Your task to perform on an android device: Open Chrome and go to settings Image 0: 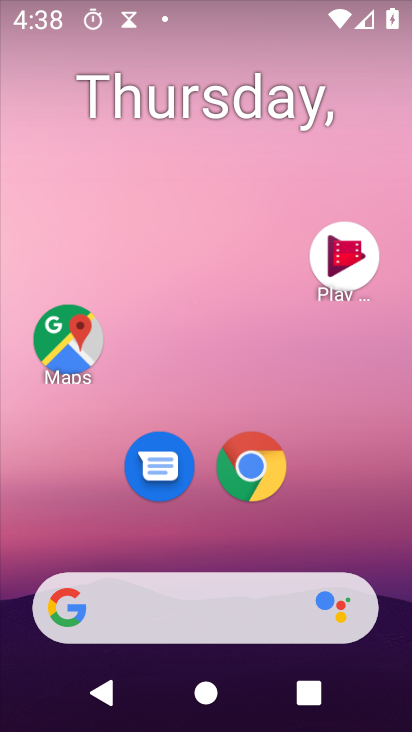
Step 0: drag from (298, 595) to (335, 44)
Your task to perform on an android device: Open Chrome and go to settings Image 1: 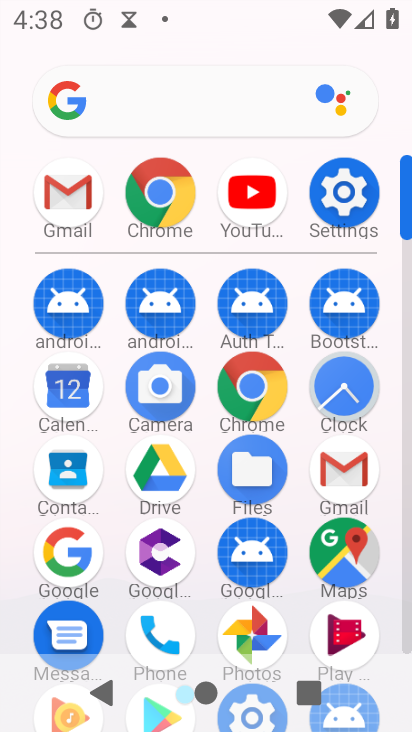
Step 1: click (253, 394)
Your task to perform on an android device: Open Chrome and go to settings Image 2: 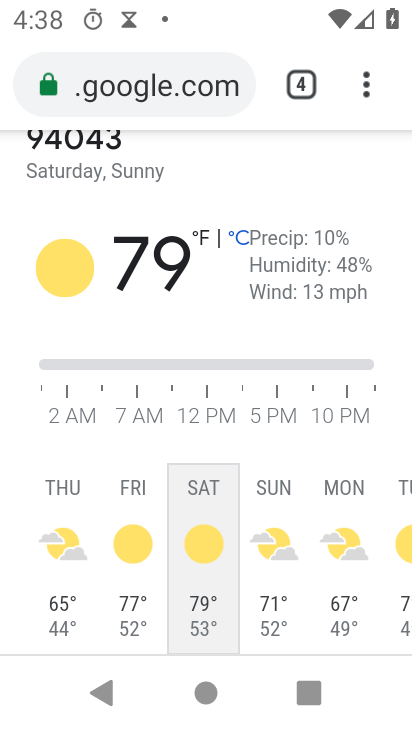
Step 2: click (366, 85)
Your task to perform on an android device: Open Chrome and go to settings Image 3: 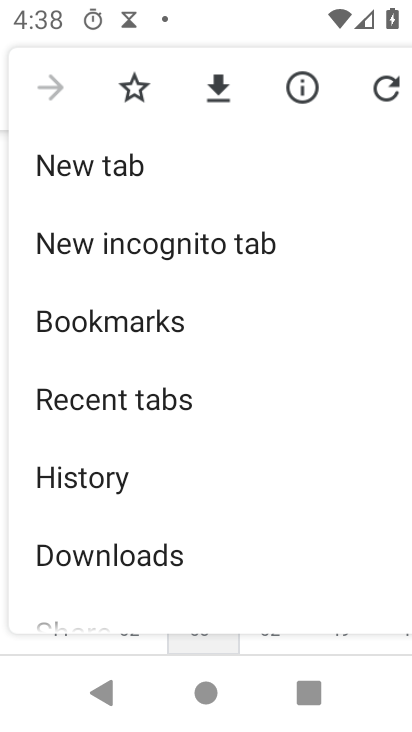
Step 3: drag from (311, 553) to (282, 34)
Your task to perform on an android device: Open Chrome and go to settings Image 4: 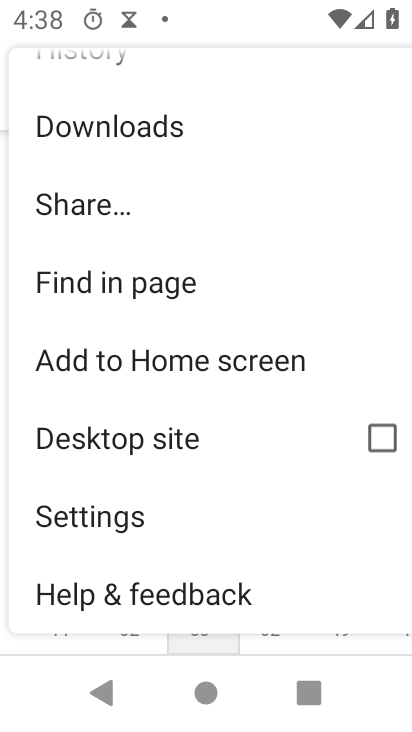
Step 4: click (156, 506)
Your task to perform on an android device: Open Chrome and go to settings Image 5: 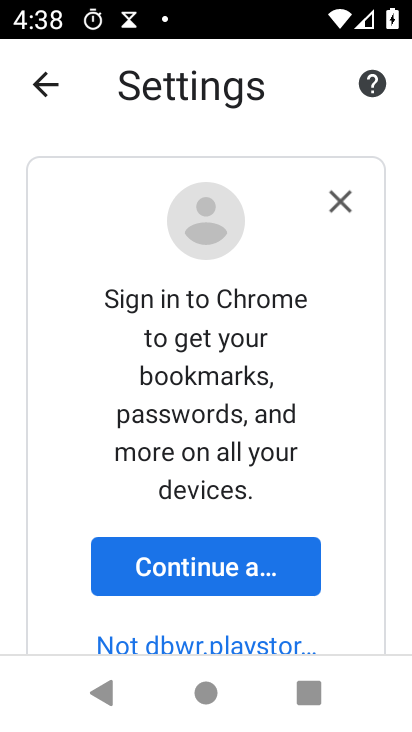
Step 5: task complete